Your task to perform on an android device: Open the map Image 0: 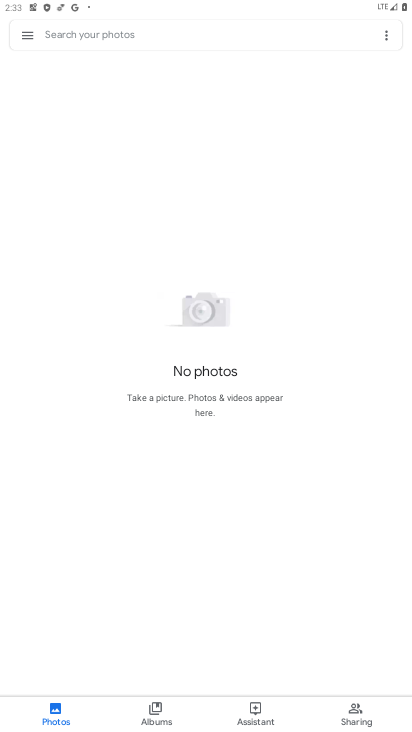
Step 0: press home button
Your task to perform on an android device: Open the map Image 1: 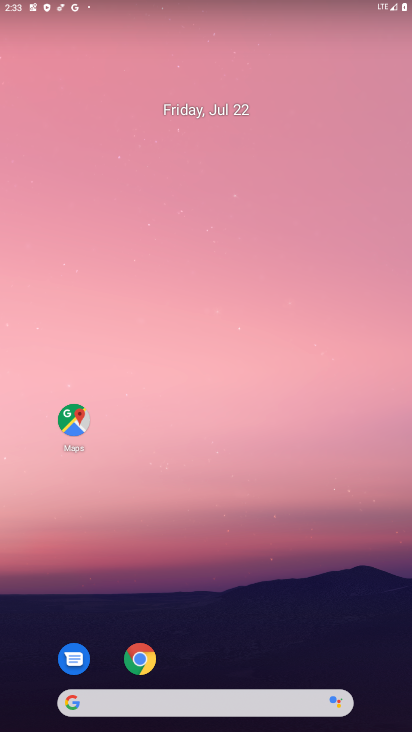
Step 1: click (190, 660)
Your task to perform on an android device: Open the map Image 2: 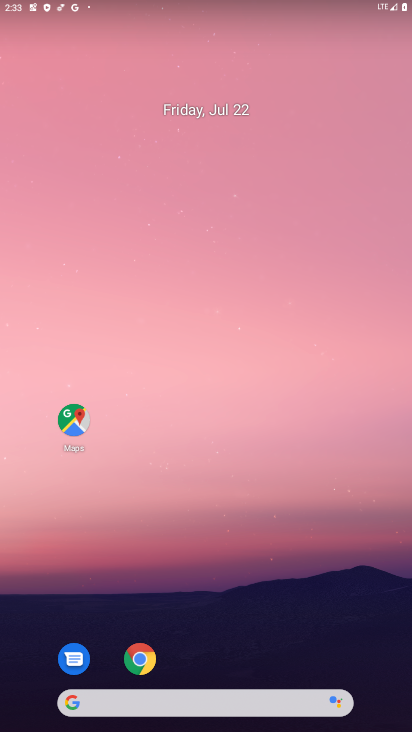
Step 2: click (80, 424)
Your task to perform on an android device: Open the map Image 3: 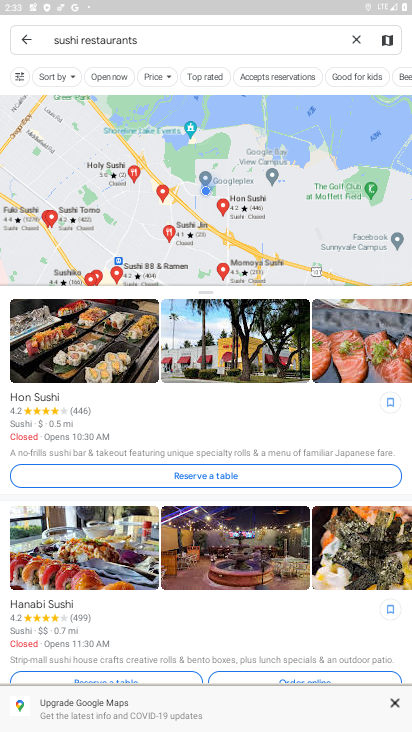
Step 3: task complete